Your task to perform on an android device: Open Google Chrome Image 0: 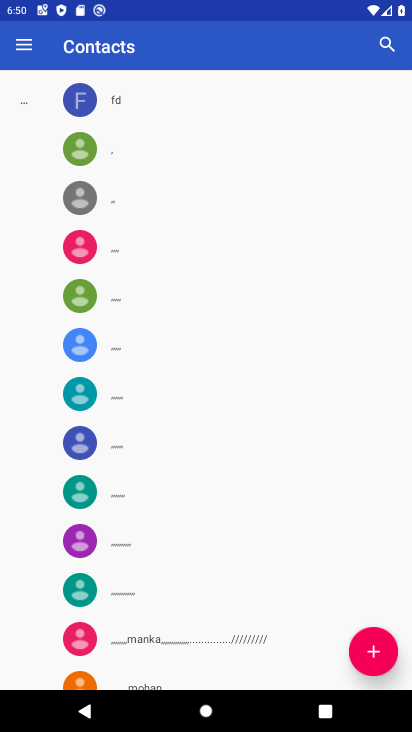
Step 0: press home button
Your task to perform on an android device: Open Google Chrome Image 1: 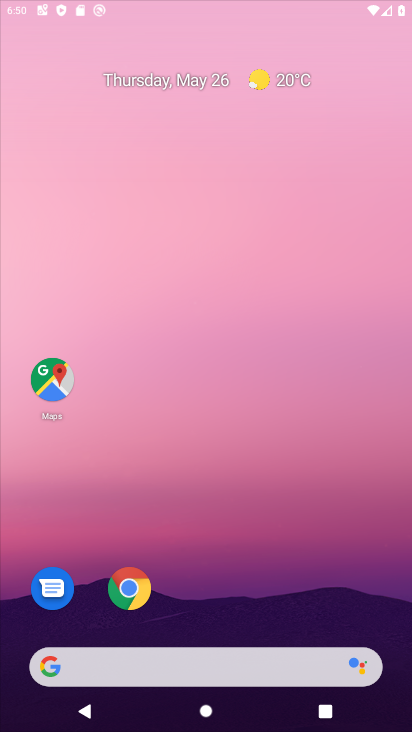
Step 1: drag from (394, 616) to (260, 35)
Your task to perform on an android device: Open Google Chrome Image 2: 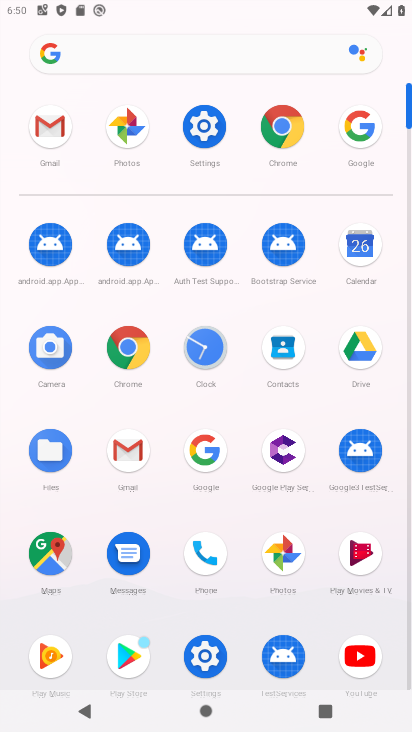
Step 2: click (128, 372)
Your task to perform on an android device: Open Google Chrome Image 3: 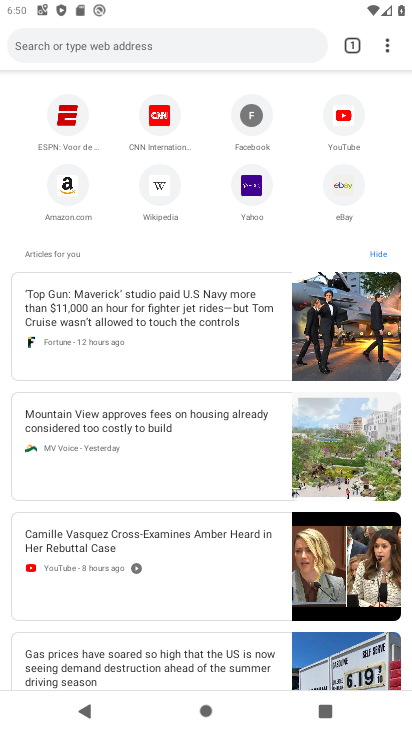
Step 3: task complete